Your task to perform on an android device: open app "File Manager" Image 0: 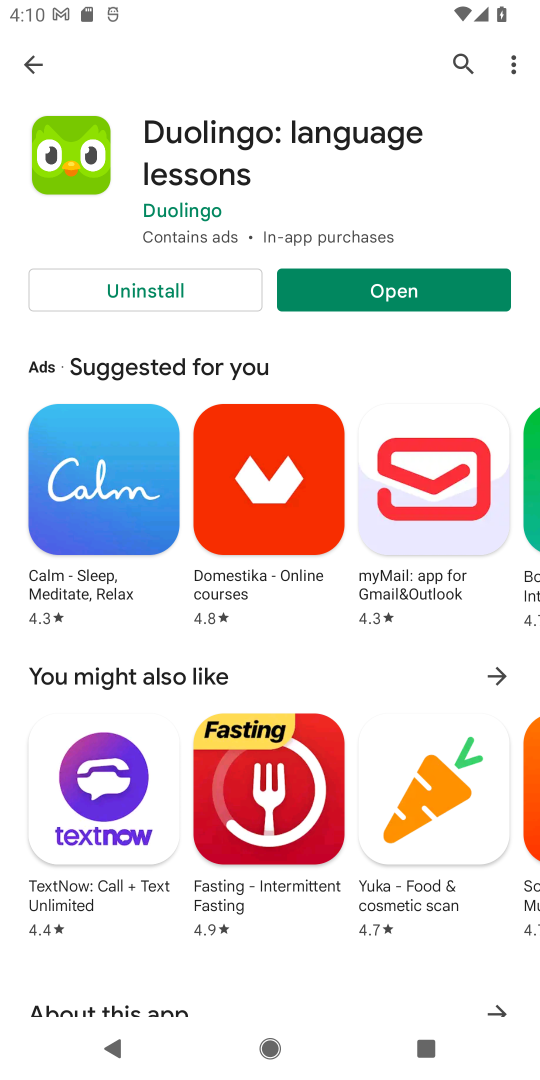
Step 0: press home button
Your task to perform on an android device: open app "File Manager" Image 1: 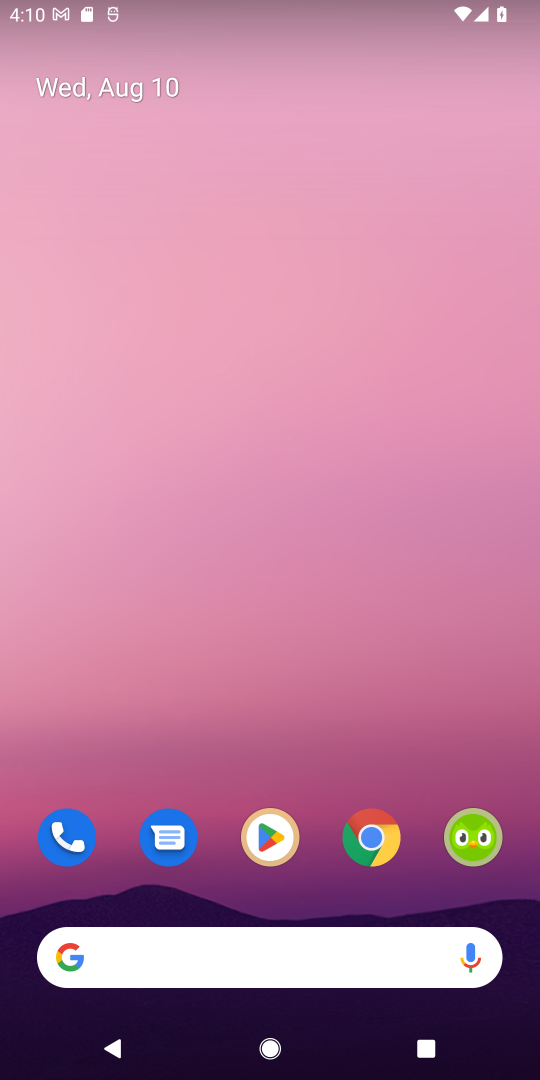
Step 1: click (271, 831)
Your task to perform on an android device: open app "File Manager" Image 2: 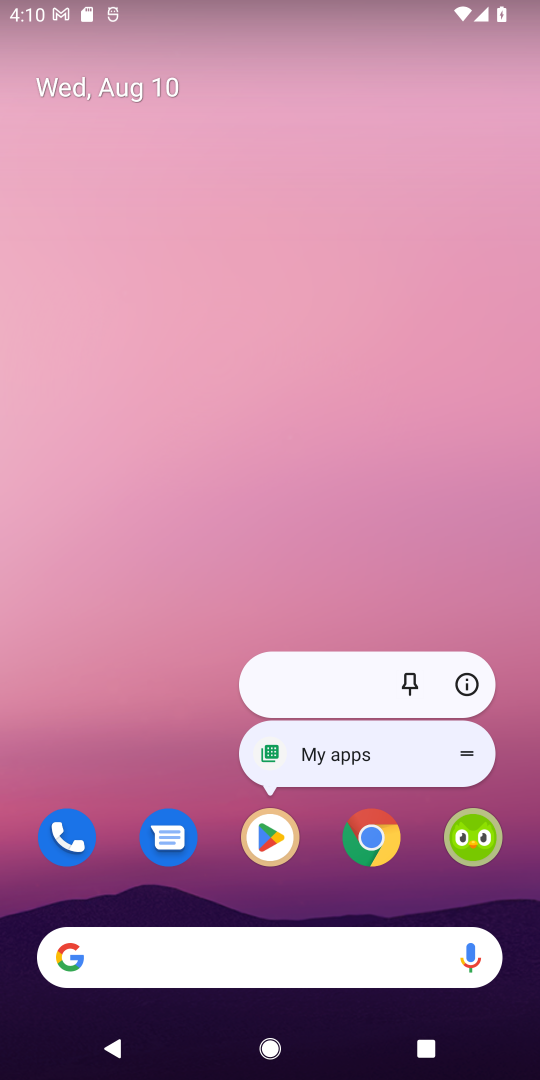
Step 2: click (272, 831)
Your task to perform on an android device: open app "File Manager" Image 3: 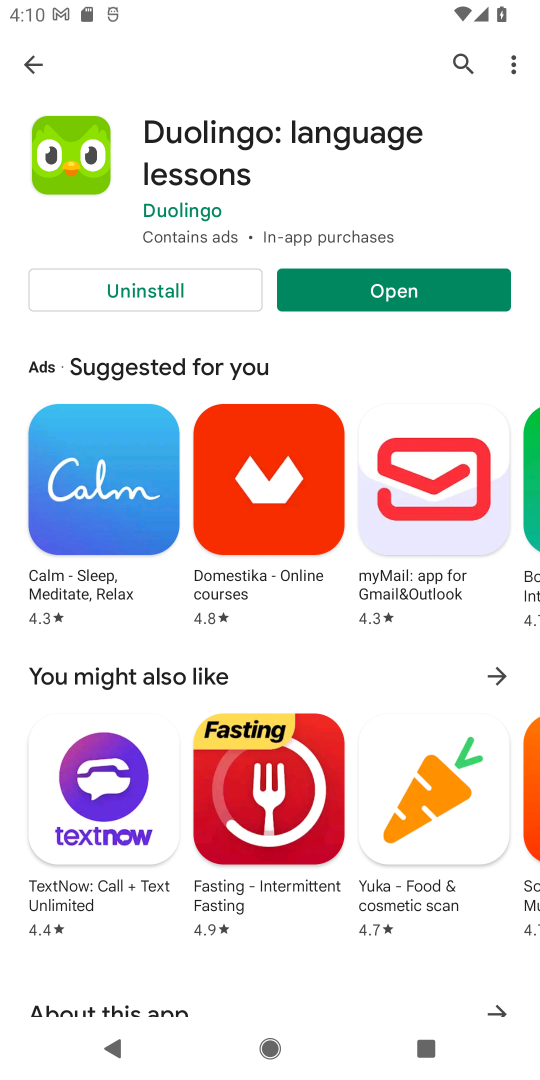
Step 3: click (465, 60)
Your task to perform on an android device: open app "File Manager" Image 4: 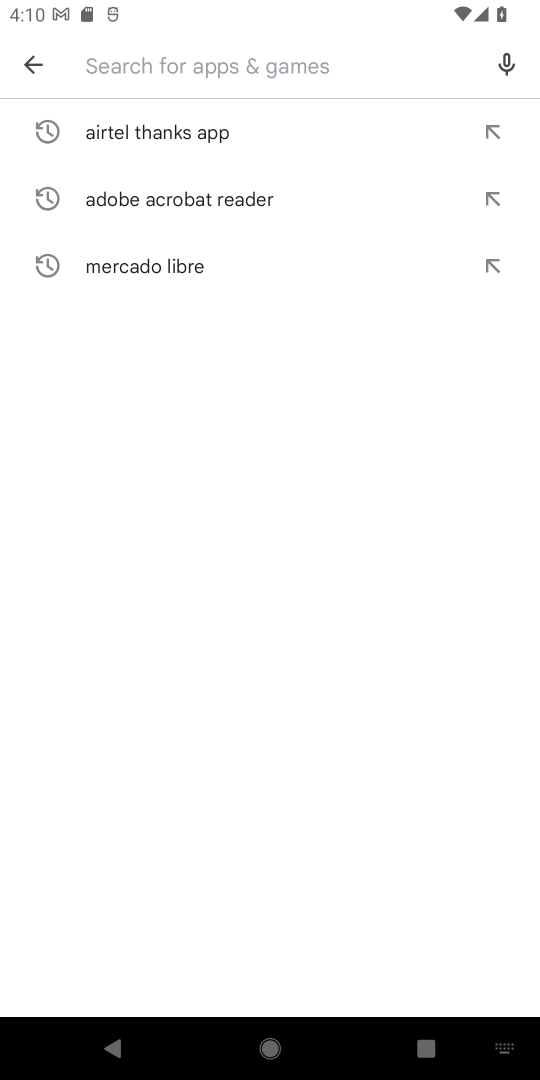
Step 4: type "File Manager"
Your task to perform on an android device: open app "File Manager" Image 5: 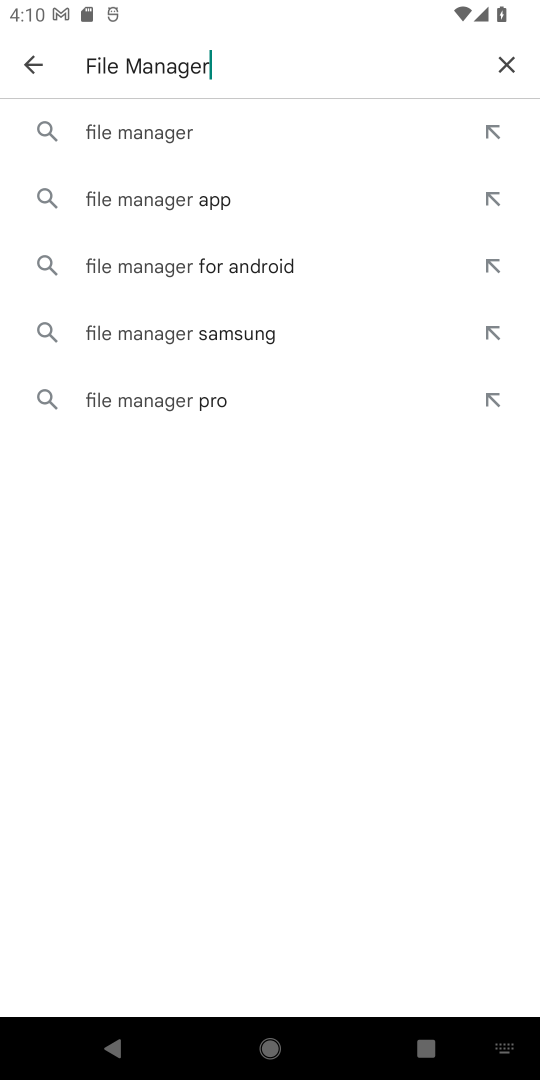
Step 5: click (129, 125)
Your task to perform on an android device: open app "File Manager" Image 6: 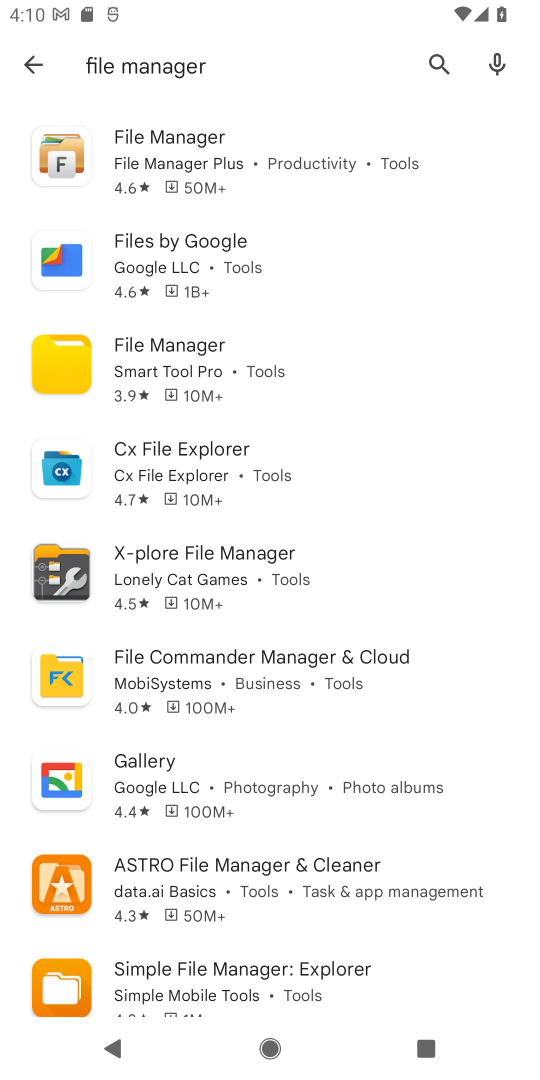
Step 6: click (203, 164)
Your task to perform on an android device: open app "File Manager" Image 7: 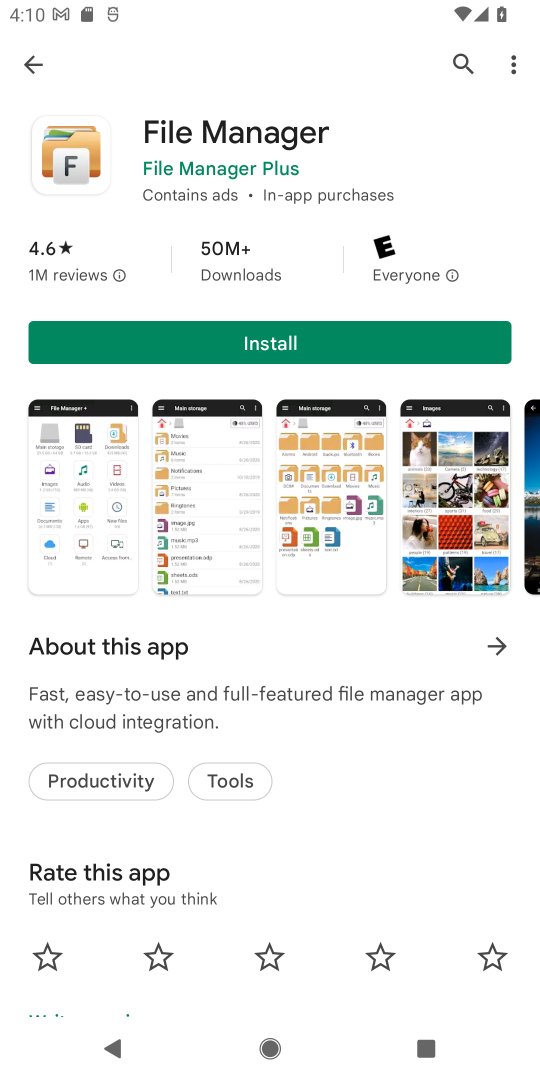
Step 7: task complete